Your task to perform on an android device: open app "Adobe Express: Graphic Design" (install if not already installed), go to login, and select forgot password Image 0: 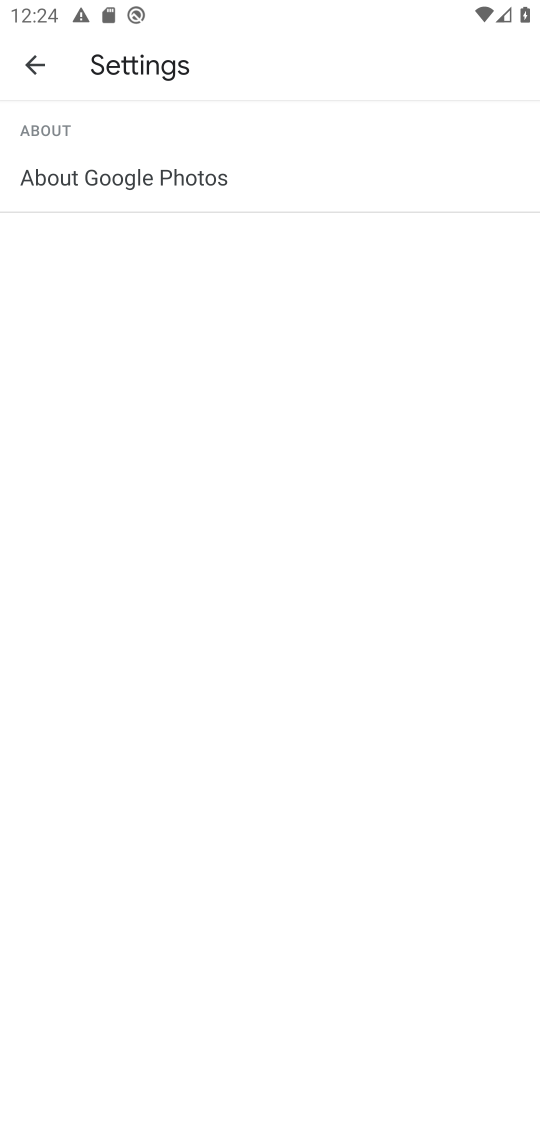
Step 0: press home button
Your task to perform on an android device: open app "Adobe Express: Graphic Design" (install if not already installed), go to login, and select forgot password Image 1: 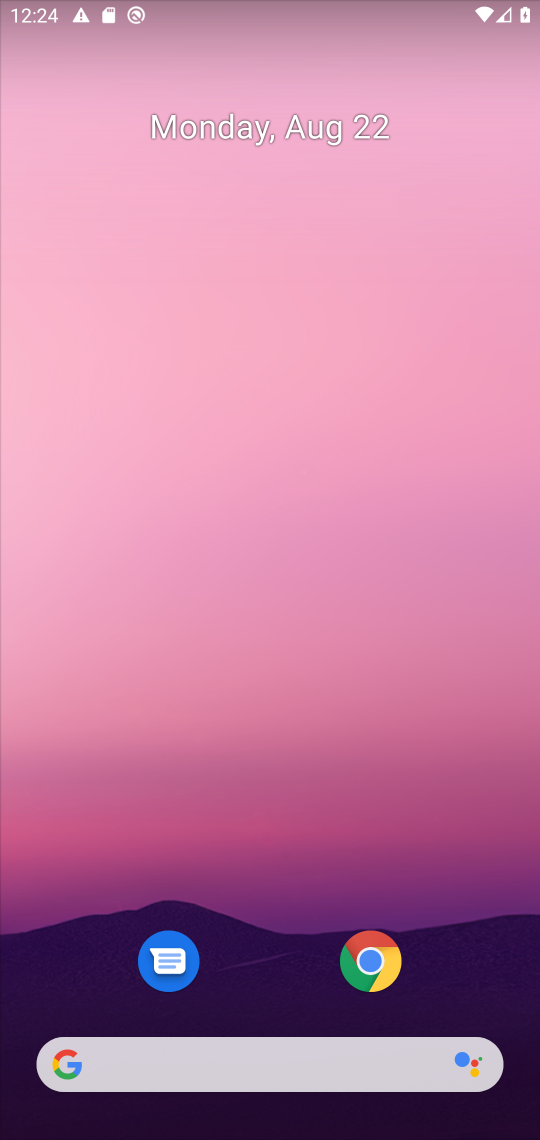
Step 1: drag from (456, 994) to (523, 366)
Your task to perform on an android device: open app "Adobe Express: Graphic Design" (install if not already installed), go to login, and select forgot password Image 2: 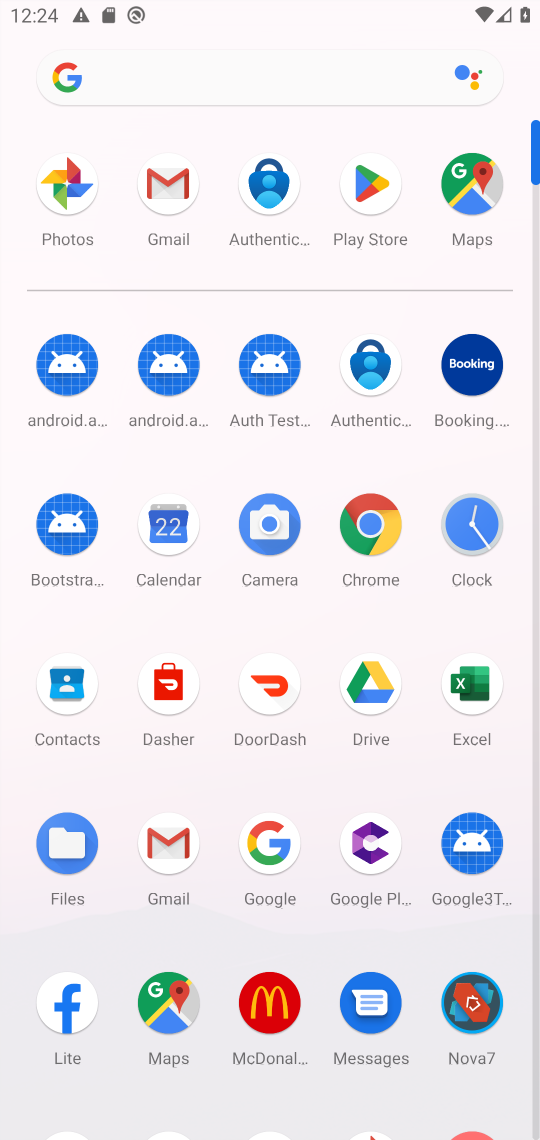
Step 2: click (372, 197)
Your task to perform on an android device: open app "Adobe Express: Graphic Design" (install if not already installed), go to login, and select forgot password Image 3: 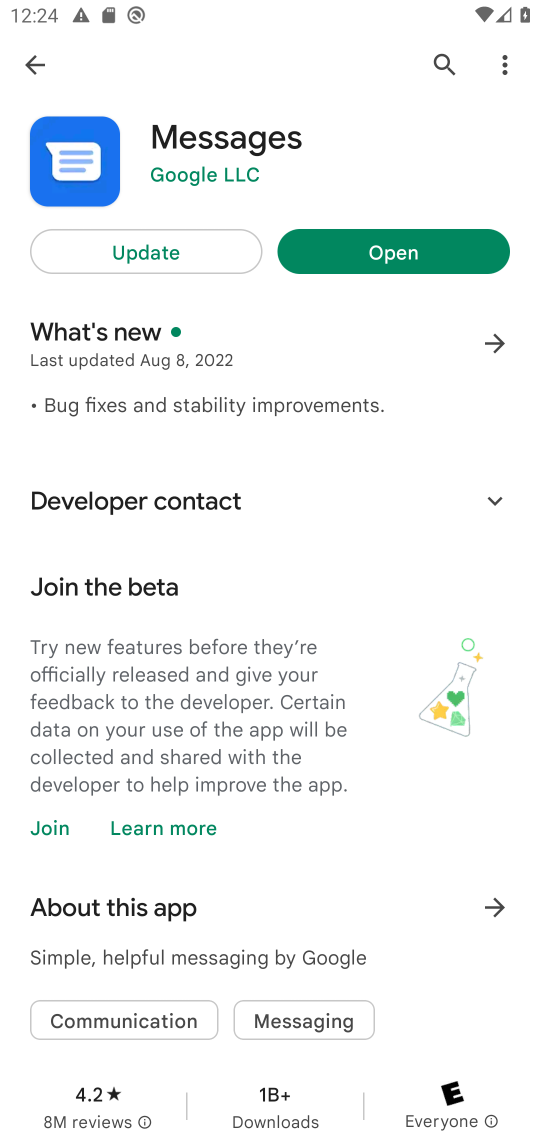
Step 3: press back button
Your task to perform on an android device: open app "Adobe Express: Graphic Design" (install if not already installed), go to login, and select forgot password Image 4: 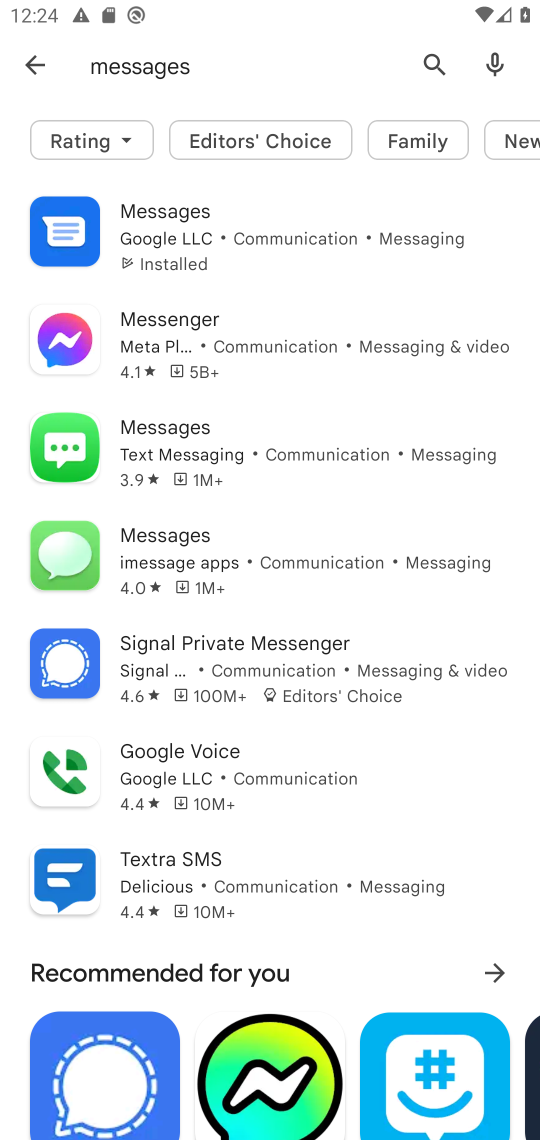
Step 4: press back button
Your task to perform on an android device: open app "Adobe Express: Graphic Design" (install if not already installed), go to login, and select forgot password Image 5: 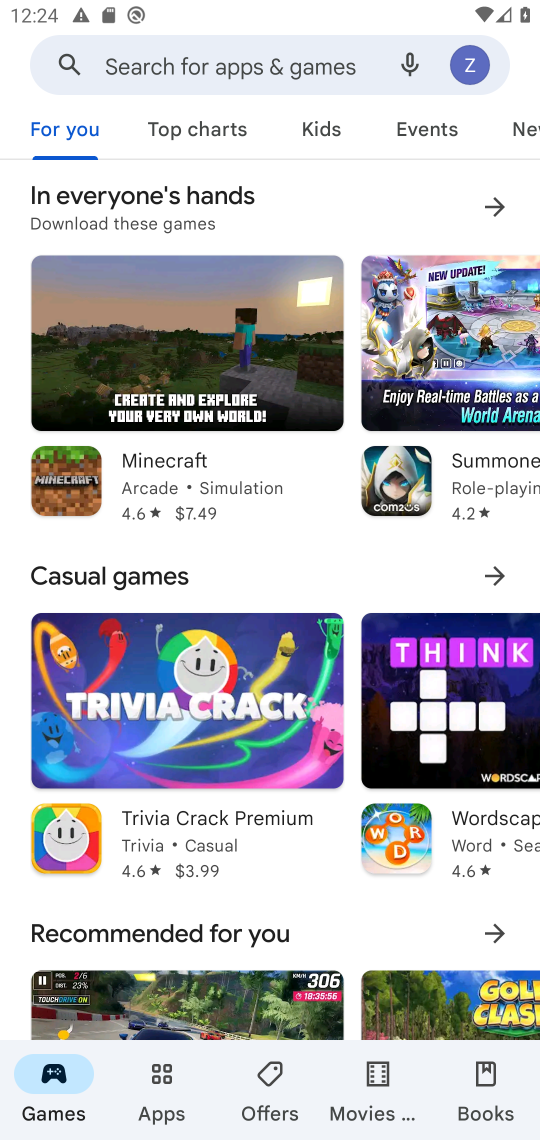
Step 5: click (229, 71)
Your task to perform on an android device: open app "Adobe Express: Graphic Design" (install if not already installed), go to login, and select forgot password Image 6: 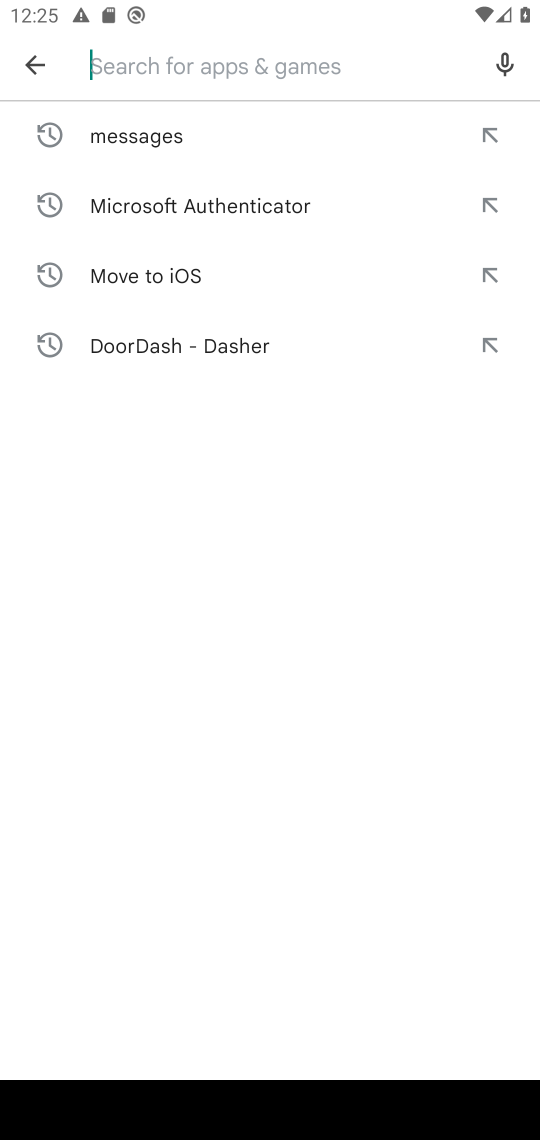
Step 6: type "Adobe Express: Graphic Design"
Your task to perform on an android device: open app "Adobe Express: Graphic Design" (install if not already installed), go to login, and select forgot password Image 7: 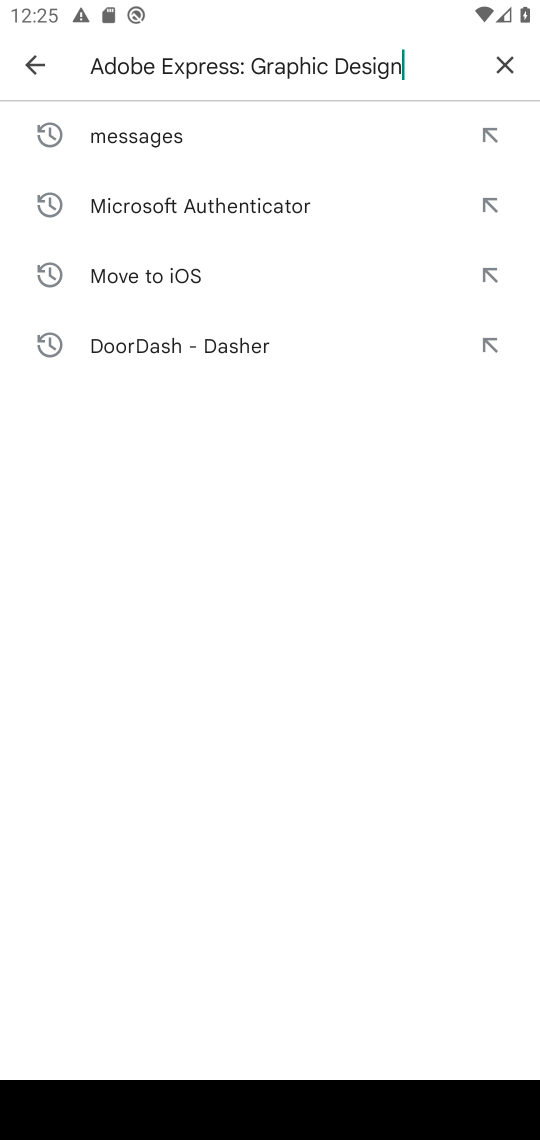
Step 7: press enter
Your task to perform on an android device: open app "Adobe Express: Graphic Design" (install if not already installed), go to login, and select forgot password Image 8: 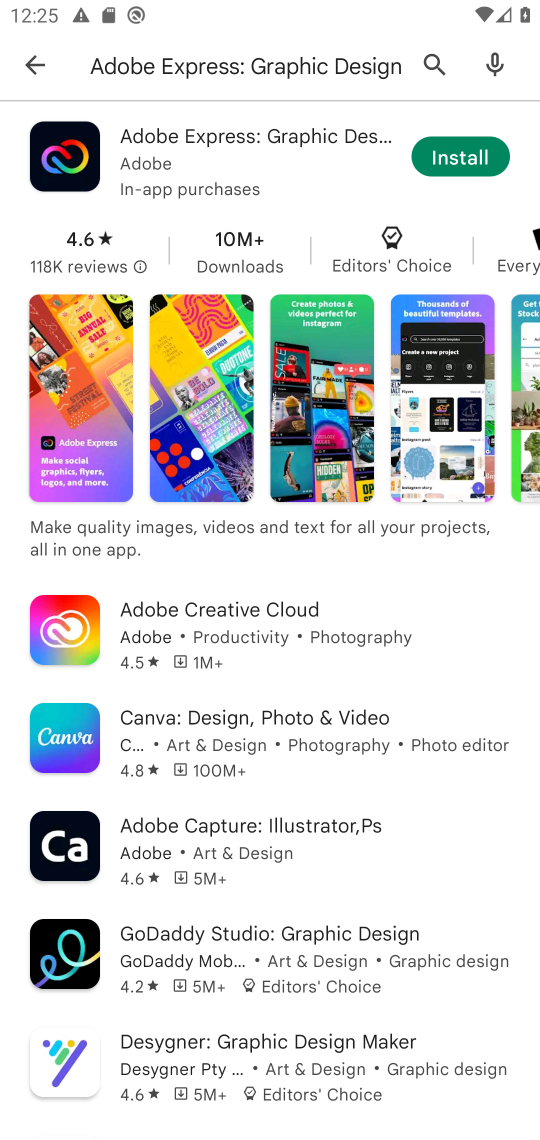
Step 8: click (463, 149)
Your task to perform on an android device: open app "Adobe Express: Graphic Design" (install if not already installed), go to login, and select forgot password Image 9: 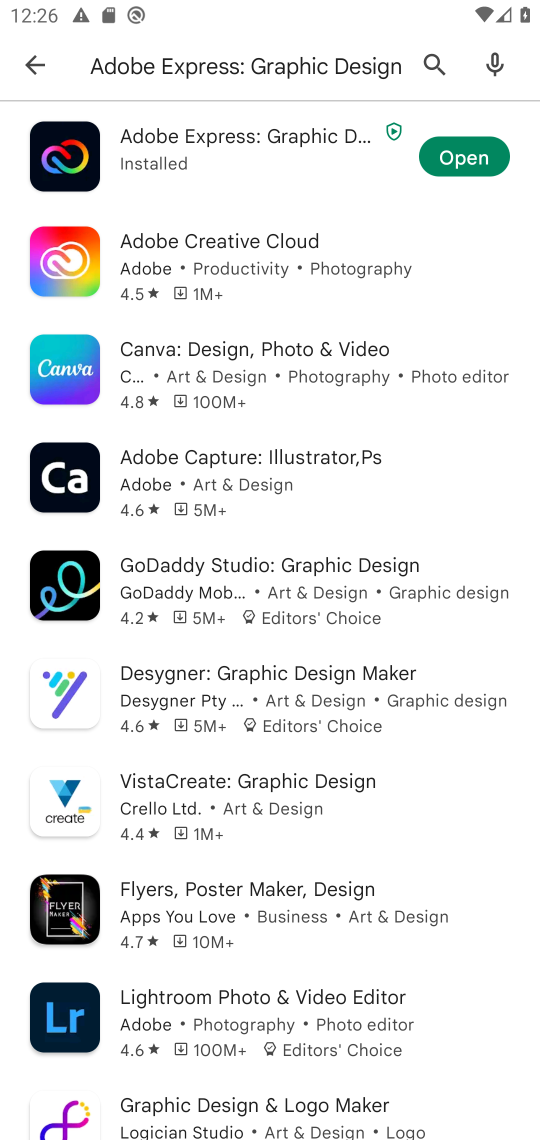
Step 9: click (472, 163)
Your task to perform on an android device: open app "Adobe Express: Graphic Design" (install if not already installed), go to login, and select forgot password Image 10: 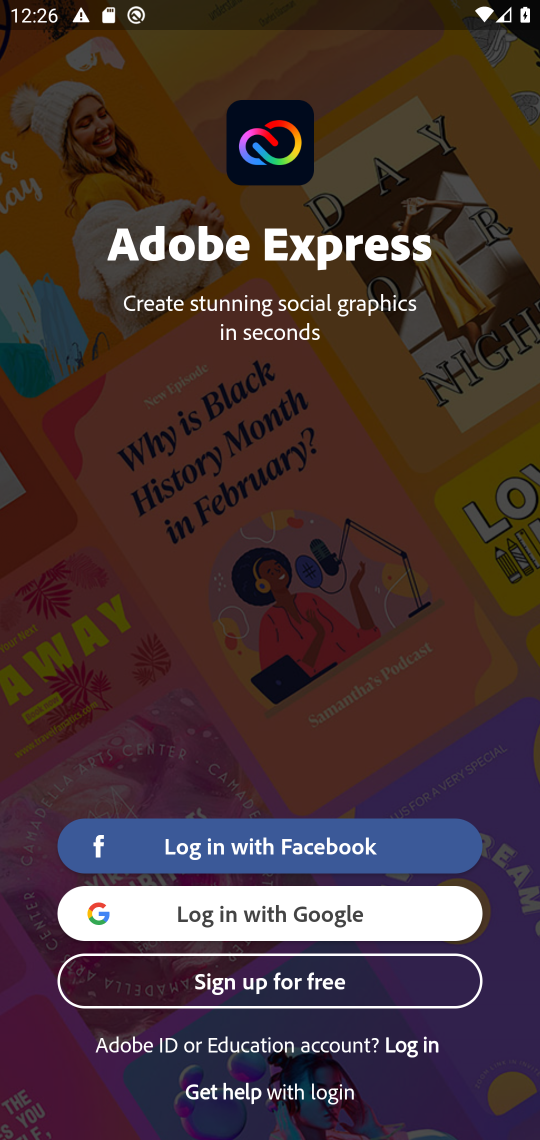
Step 10: click (410, 1050)
Your task to perform on an android device: open app "Adobe Express: Graphic Design" (install if not already installed), go to login, and select forgot password Image 11: 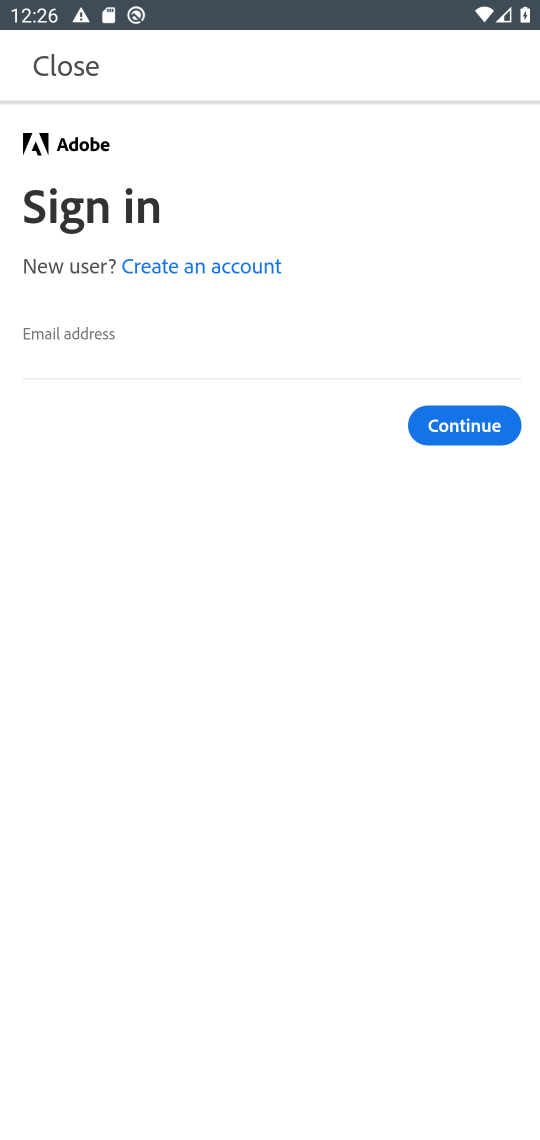
Step 11: task complete